Your task to perform on an android device: add a contact in the contacts app Image 0: 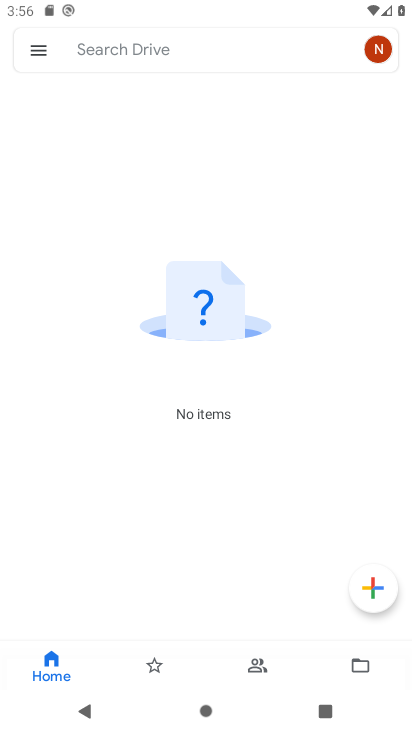
Step 0: press home button
Your task to perform on an android device: add a contact in the contacts app Image 1: 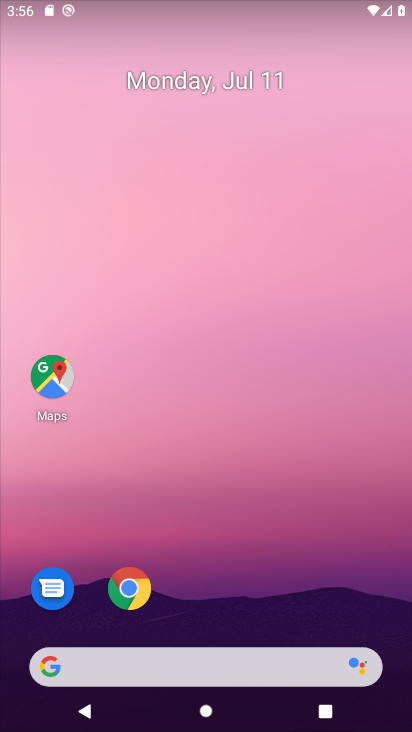
Step 1: drag from (273, 615) to (180, 37)
Your task to perform on an android device: add a contact in the contacts app Image 2: 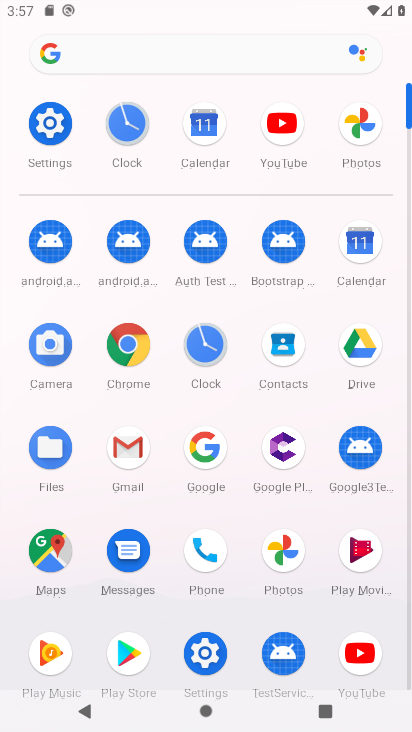
Step 2: click (278, 346)
Your task to perform on an android device: add a contact in the contacts app Image 3: 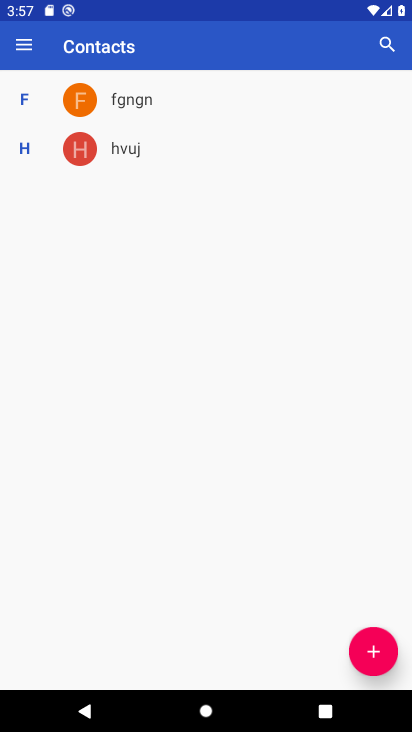
Step 3: click (365, 662)
Your task to perform on an android device: add a contact in the contacts app Image 4: 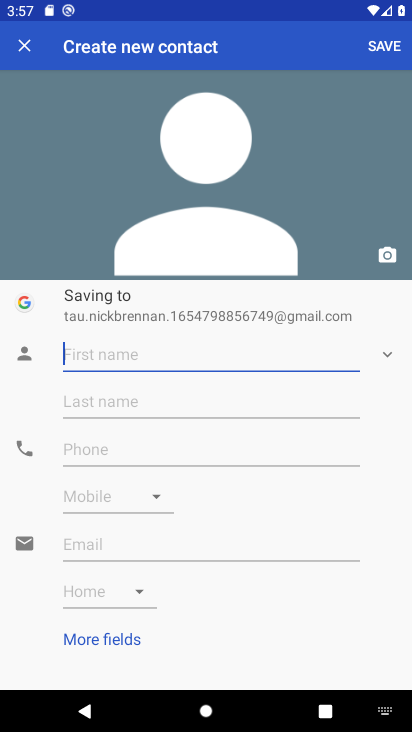
Step 4: type "ytfghj"
Your task to perform on an android device: add a contact in the contacts app Image 5: 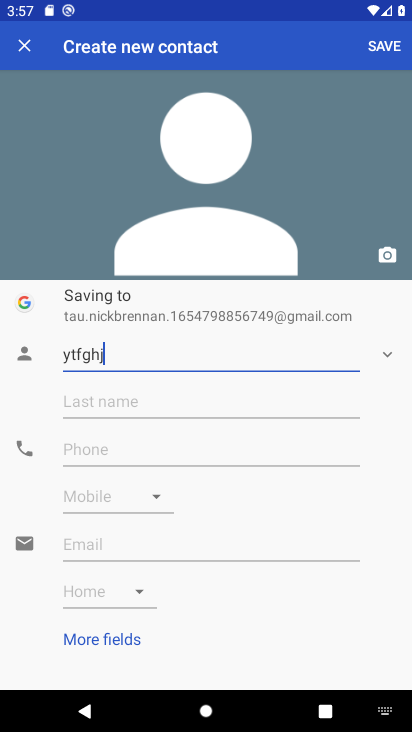
Step 5: click (88, 454)
Your task to perform on an android device: add a contact in the contacts app Image 6: 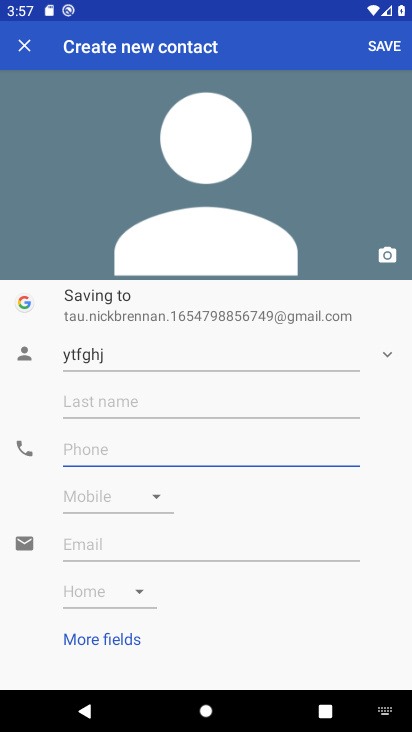
Step 6: type "6789054321"
Your task to perform on an android device: add a contact in the contacts app Image 7: 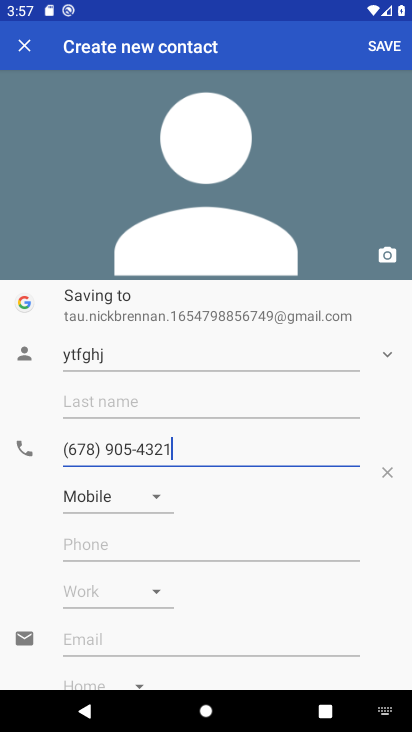
Step 7: click (383, 47)
Your task to perform on an android device: add a contact in the contacts app Image 8: 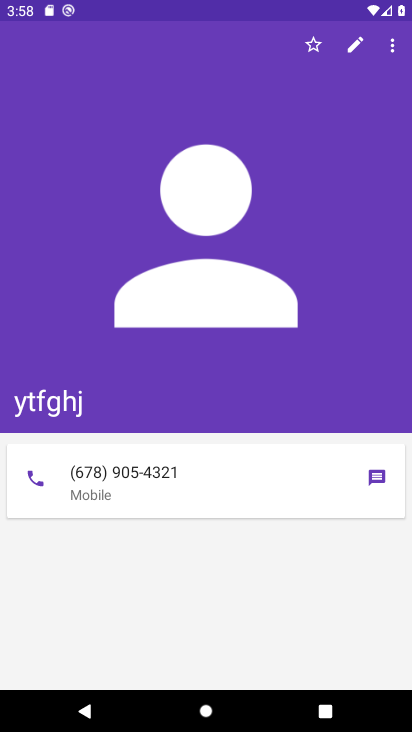
Step 8: task complete